Your task to perform on an android device: turn vacation reply on in the gmail app Image 0: 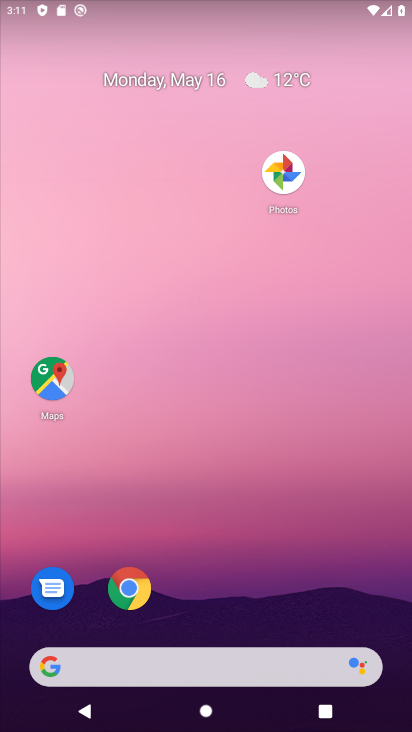
Step 0: drag from (232, 623) to (299, 2)
Your task to perform on an android device: turn vacation reply on in the gmail app Image 1: 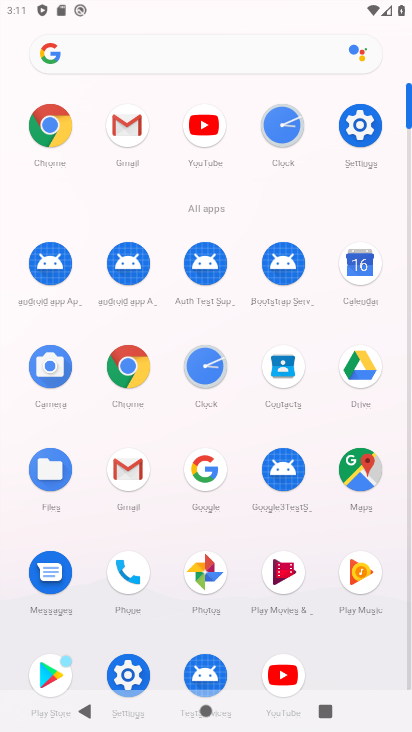
Step 1: click (117, 148)
Your task to perform on an android device: turn vacation reply on in the gmail app Image 2: 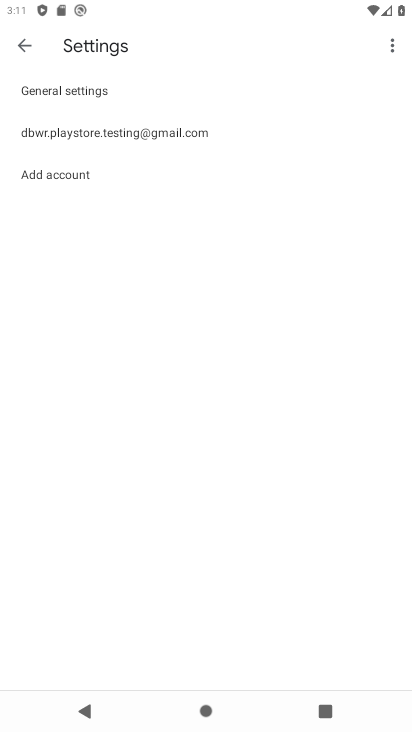
Step 2: click (117, 148)
Your task to perform on an android device: turn vacation reply on in the gmail app Image 3: 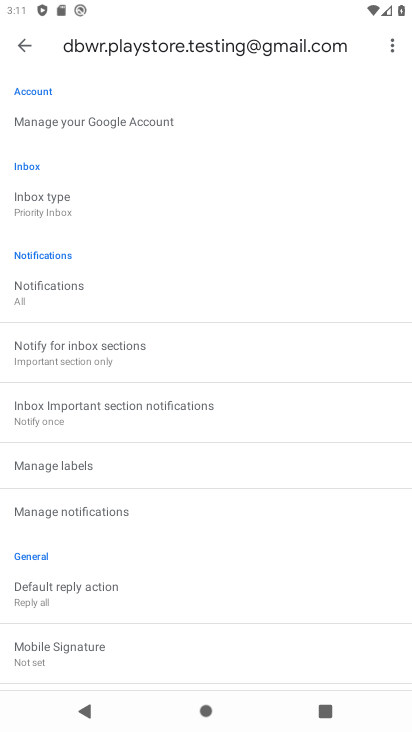
Step 3: drag from (202, 600) to (267, 109)
Your task to perform on an android device: turn vacation reply on in the gmail app Image 4: 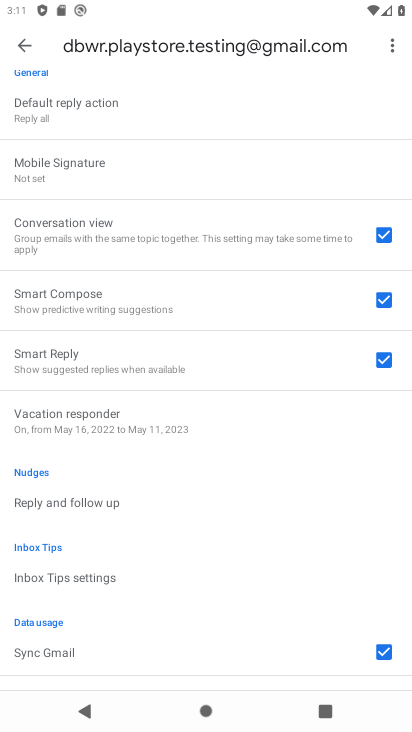
Step 4: drag from (180, 623) to (239, 42)
Your task to perform on an android device: turn vacation reply on in the gmail app Image 5: 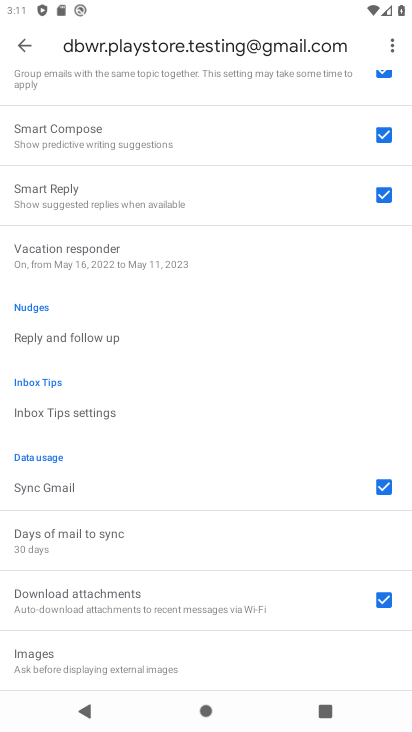
Step 5: click (177, 255)
Your task to perform on an android device: turn vacation reply on in the gmail app Image 6: 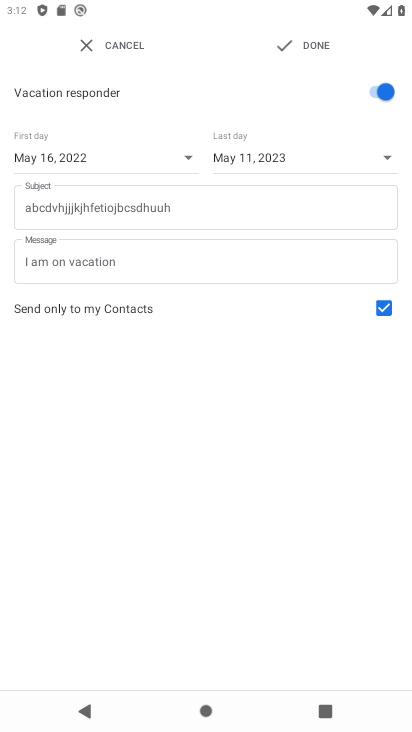
Step 6: click (309, 32)
Your task to perform on an android device: turn vacation reply on in the gmail app Image 7: 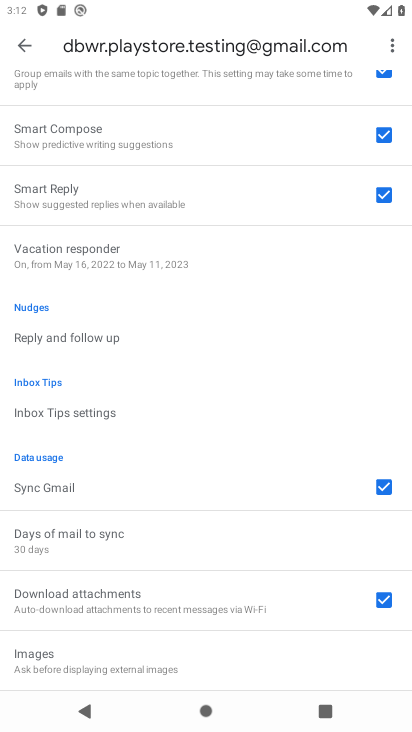
Step 7: task complete